Your task to perform on an android device: set an alarm Image 0: 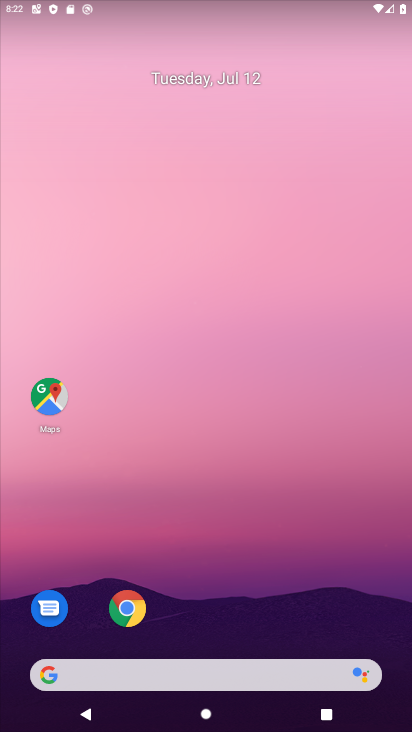
Step 0: drag from (193, 607) to (216, 233)
Your task to perform on an android device: set an alarm Image 1: 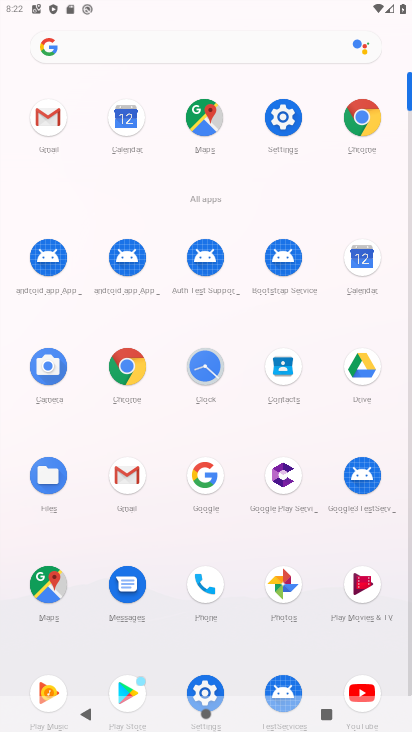
Step 1: click (202, 359)
Your task to perform on an android device: set an alarm Image 2: 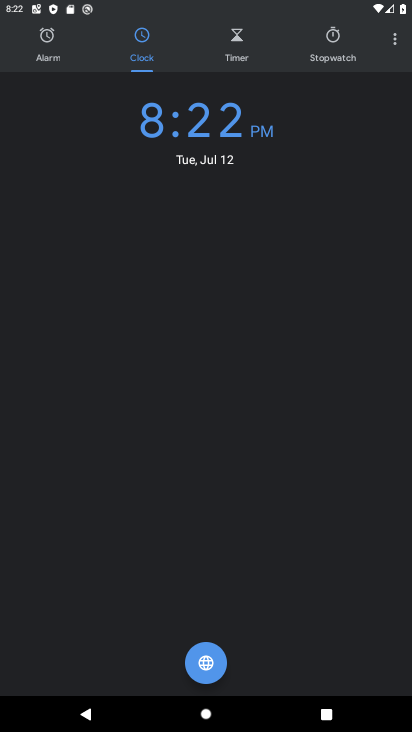
Step 2: click (26, 50)
Your task to perform on an android device: set an alarm Image 3: 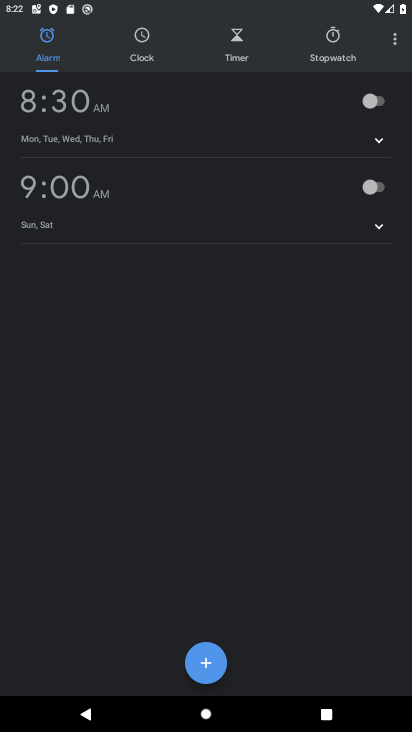
Step 3: click (206, 660)
Your task to perform on an android device: set an alarm Image 4: 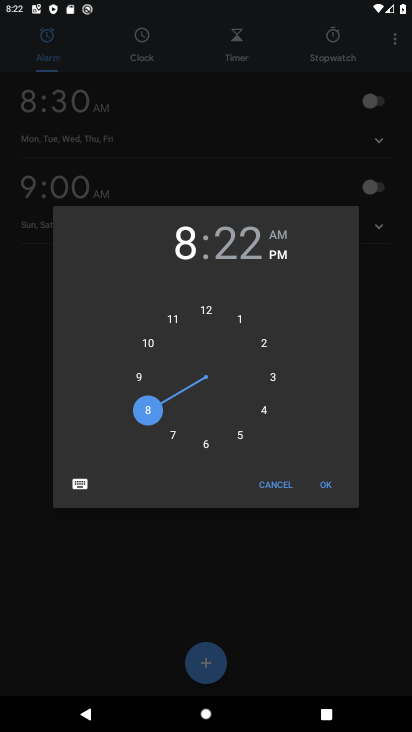
Step 4: click (333, 489)
Your task to perform on an android device: set an alarm Image 5: 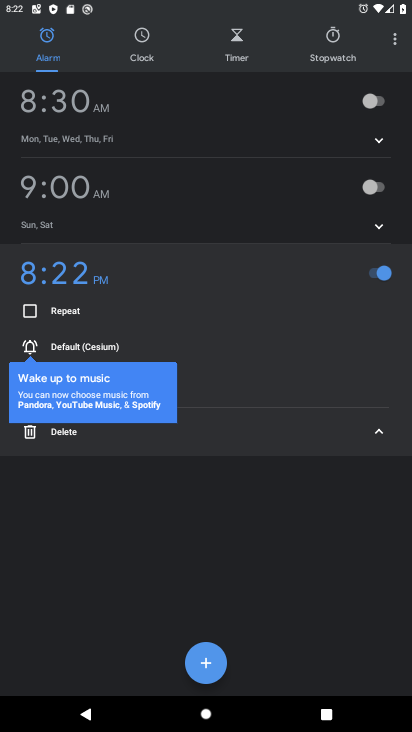
Step 5: click (375, 440)
Your task to perform on an android device: set an alarm Image 6: 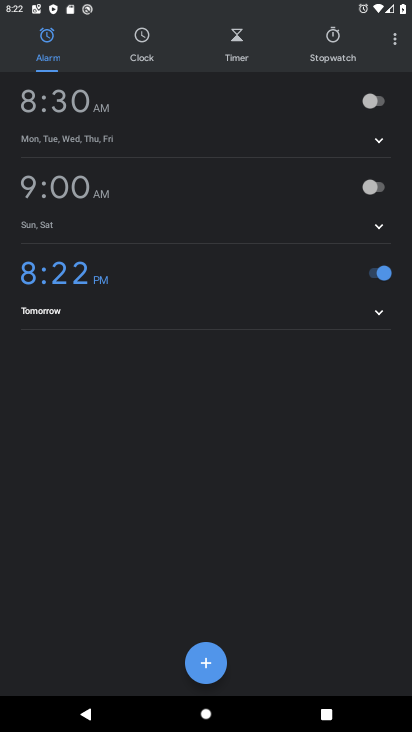
Step 6: task complete